Your task to perform on an android device: change the clock display to show seconds Image 0: 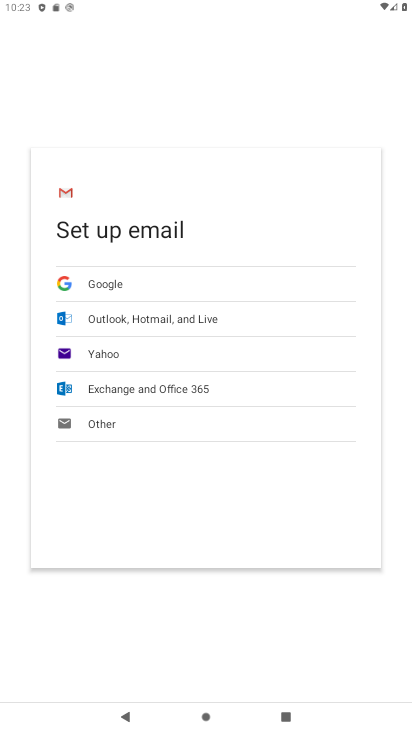
Step 0: press home button
Your task to perform on an android device: change the clock display to show seconds Image 1: 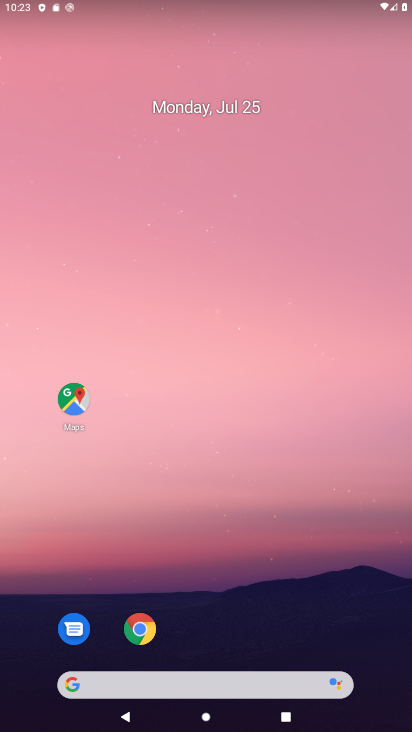
Step 1: drag from (216, 659) to (271, 22)
Your task to perform on an android device: change the clock display to show seconds Image 2: 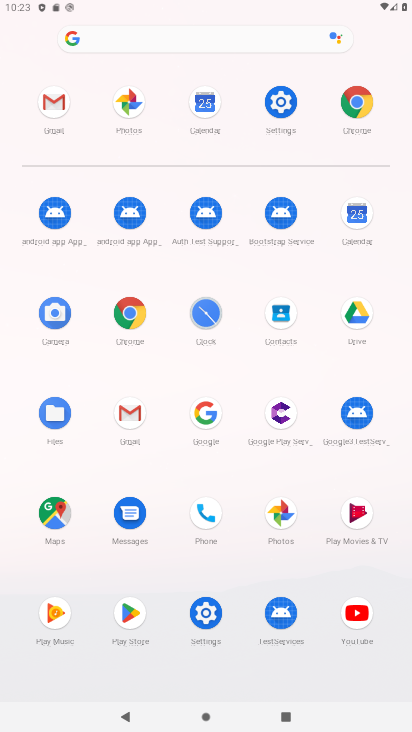
Step 2: click (205, 314)
Your task to perform on an android device: change the clock display to show seconds Image 3: 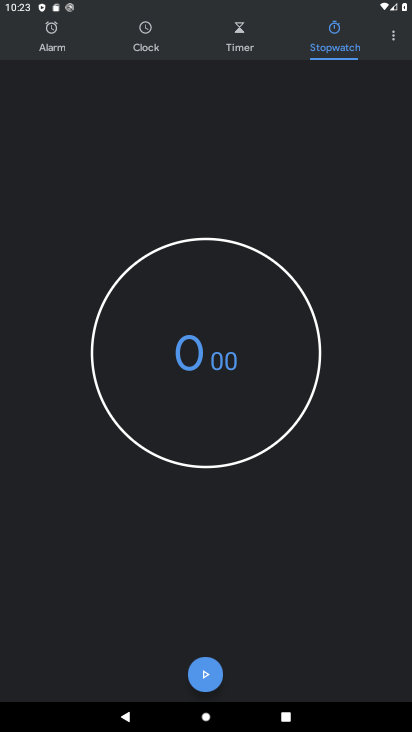
Step 3: click (394, 39)
Your task to perform on an android device: change the clock display to show seconds Image 4: 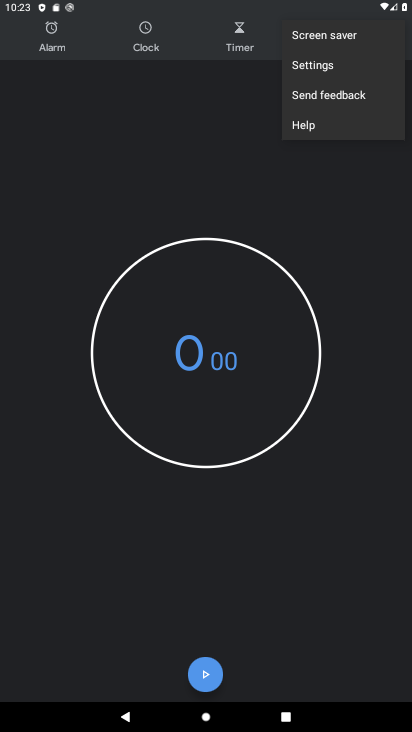
Step 4: click (318, 70)
Your task to perform on an android device: change the clock display to show seconds Image 5: 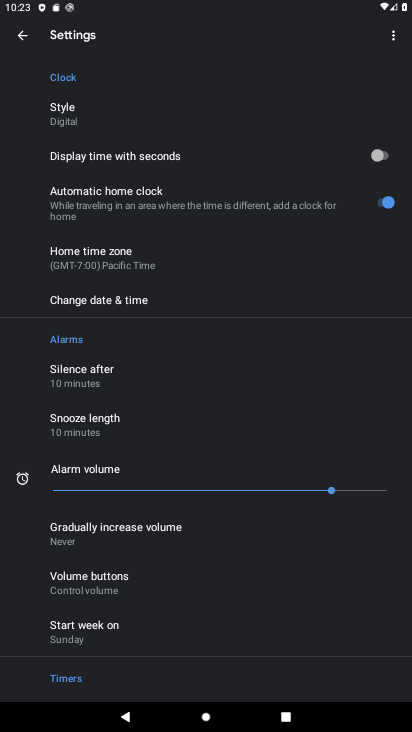
Step 5: click (390, 161)
Your task to perform on an android device: change the clock display to show seconds Image 6: 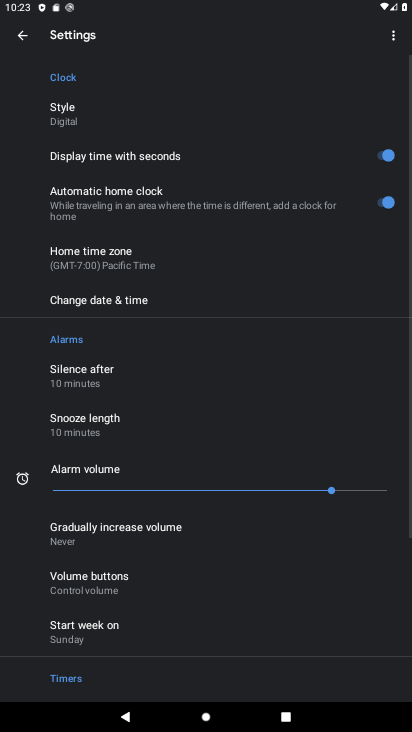
Step 6: task complete